Your task to perform on an android device: Open ESPN.com Image 0: 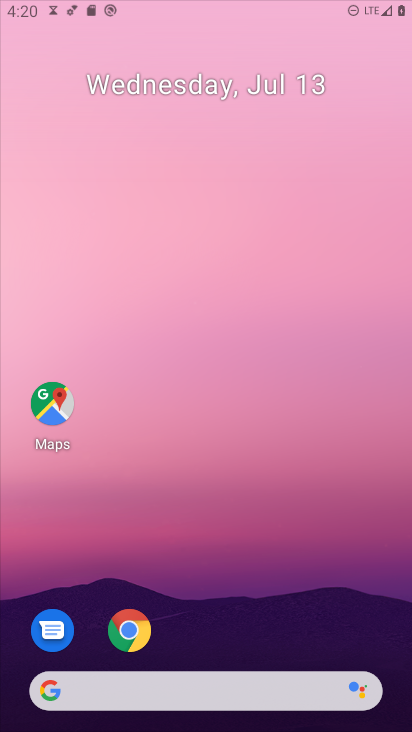
Step 0: press home button
Your task to perform on an android device: Open ESPN.com Image 1: 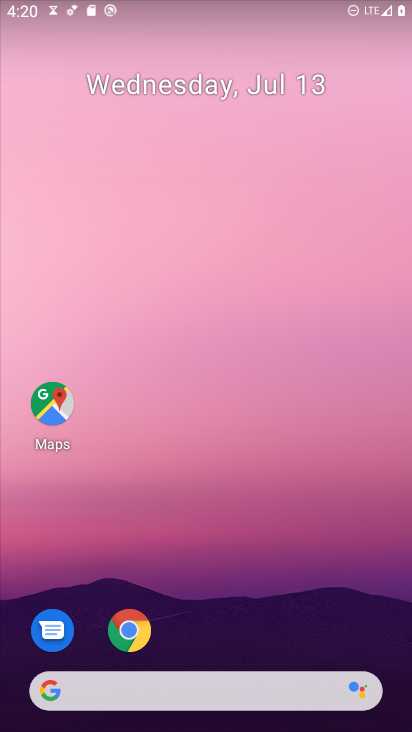
Step 1: click (53, 685)
Your task to perform on an android device: Open ESPN.com Image 2: 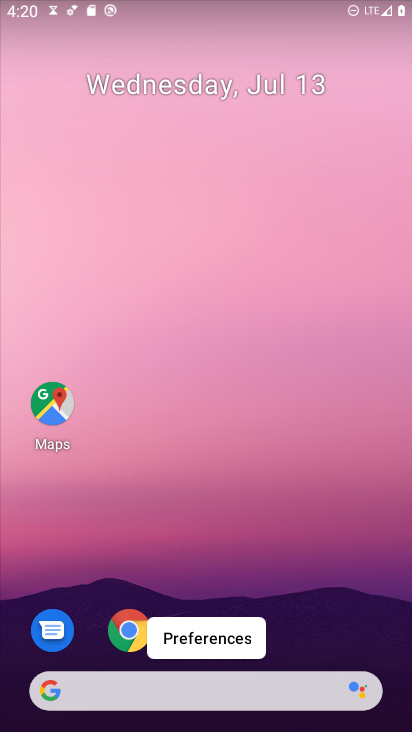
Step 2: click (52, 684)
Your task to perform on an android device: Open ESPN.com Image 3: 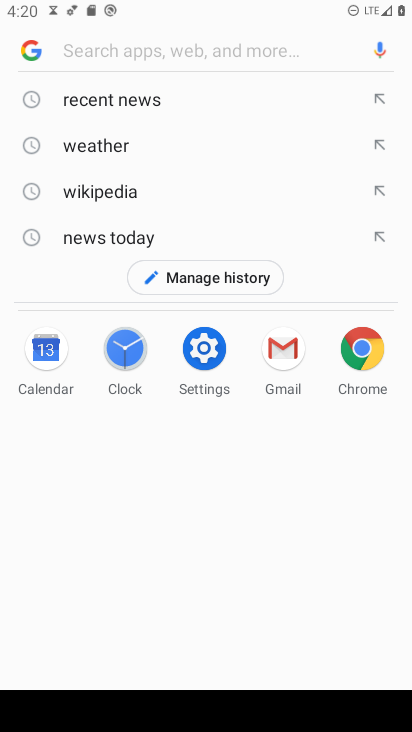
Step 3: type "ESPN.com"
Your task to perform on an android device: Open ESPN.com Image 4: 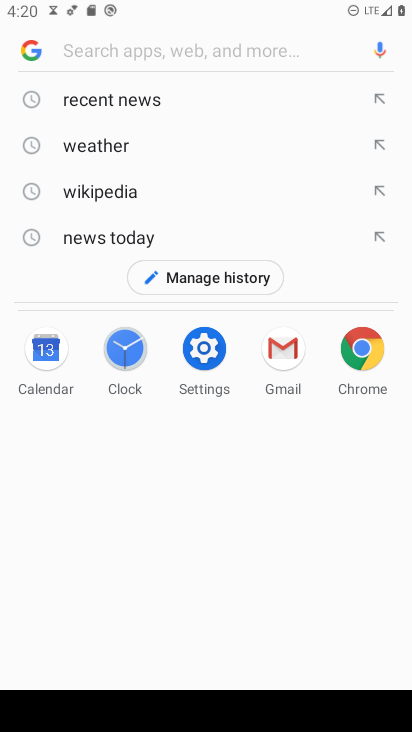
Step 4: click (110, 47)
Your task to perform on an android device: Open ESPN.com Image 5: 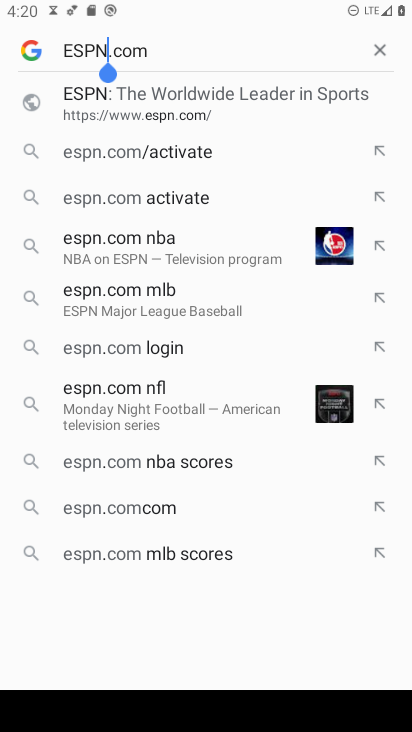
Step 5: press enter
Your task to perform on an android device: Open ESPN.com Image 6: 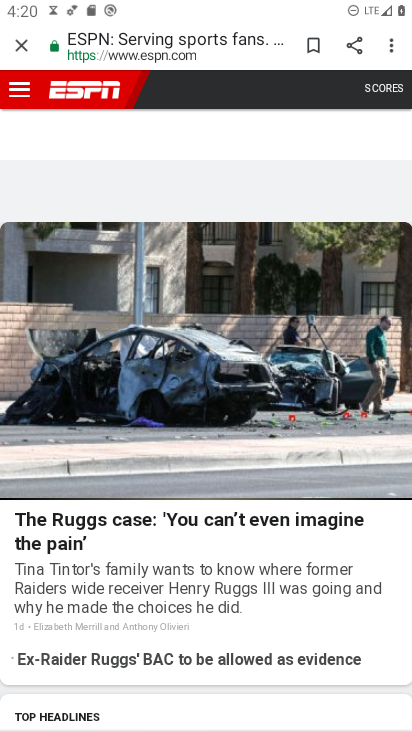
Step 6: task complete